Your task to perform on an android device: Do I have any events today? Image 0: 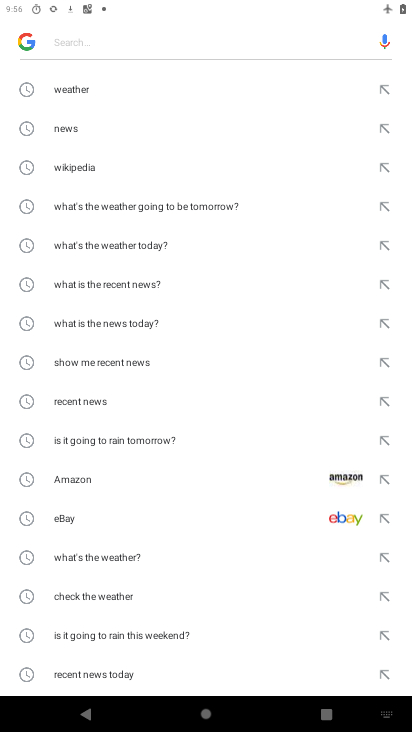
Step 0: press back button
Your task to perform on an android device: Do I have any events today? Image 1: 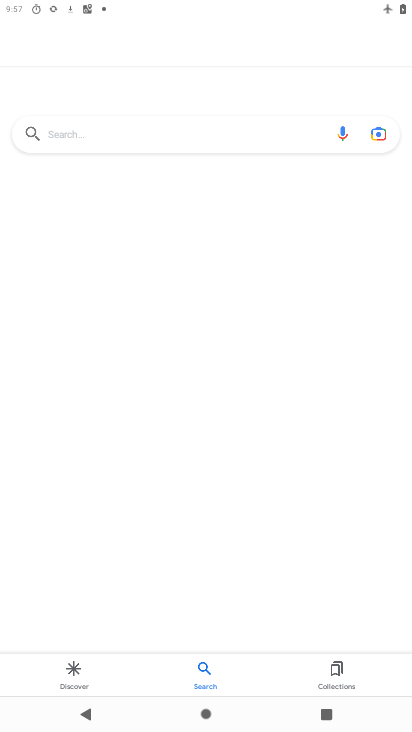
Step 1: press home button
Your task to perform on an android device: Do I have any events today? Image 2: 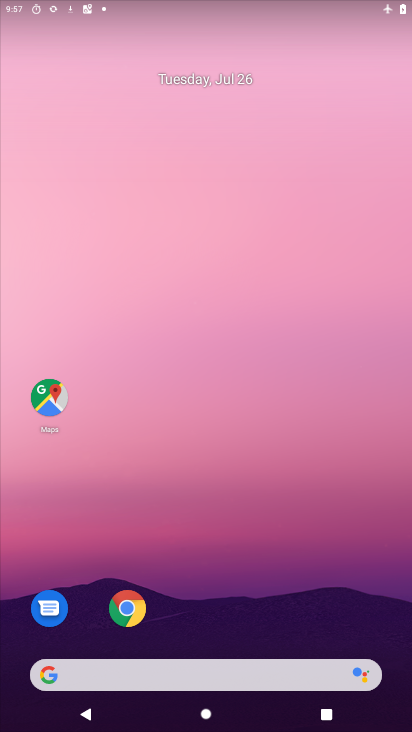
Step 2: drag from (220, 614) to (227, 172)
Your task to perform on an android device: Do I have any events today? Image 3: 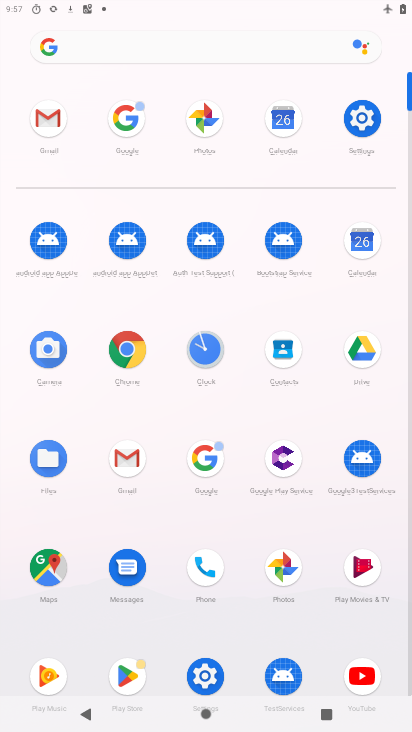
Step 3: click (348, 254)
Your task to perform on an android device: Do I have any events today? Image 4: 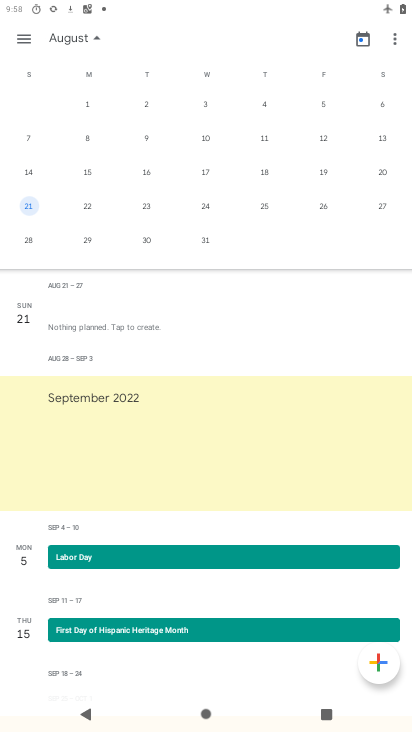
Step 4: drag from (41, 202) to (377, 219)
Your task to perform on an android device: Do I have any events today? Image 5: 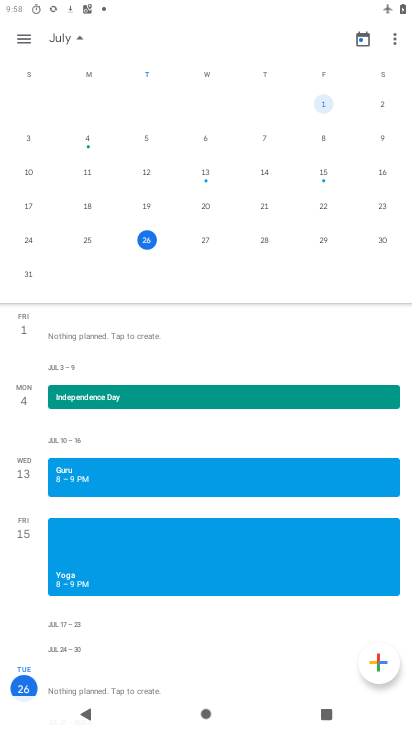
Step 5: click (156, 243)
Your task to perform on an android device: Do I have any events today? Image 6: 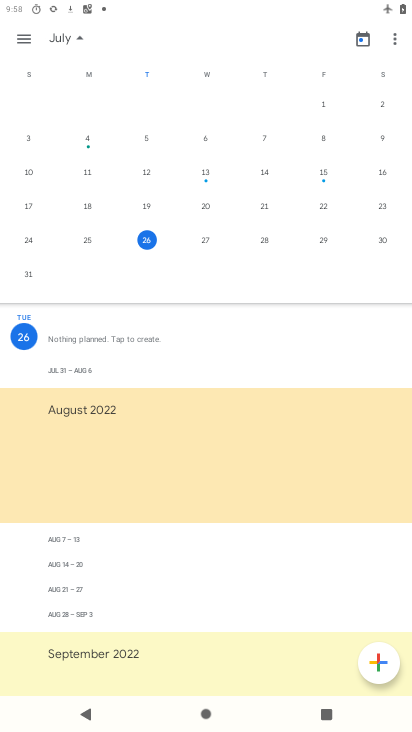
Step 6: task complete